Your task to perform on an android device: install app "Adobe Acrobat Reader" Image 0: 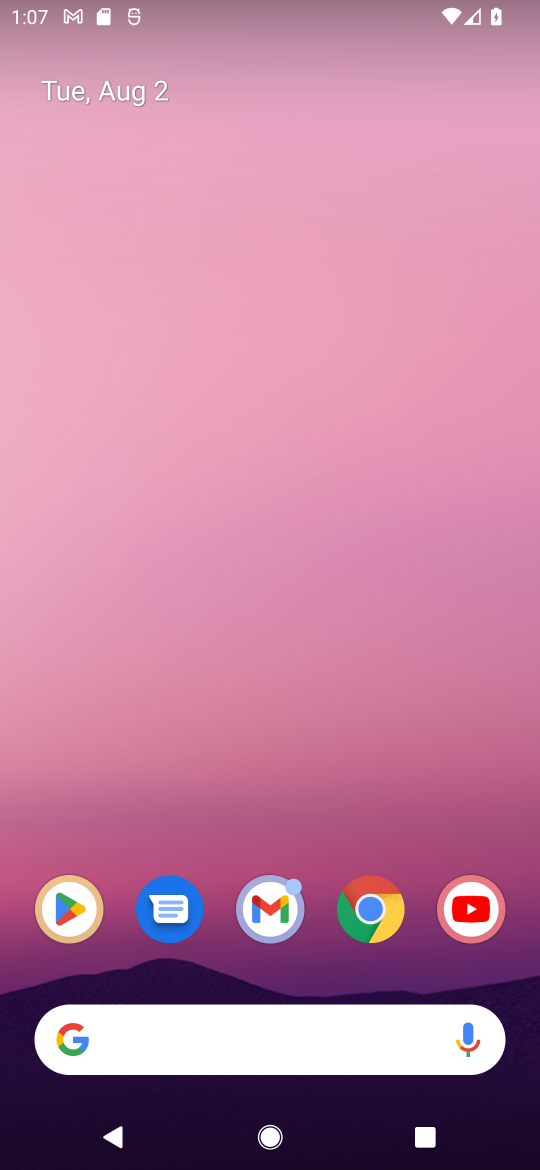
Step 0: click (62, 905)
Your task to perform on an android device: install app "Adobe Acrobat Reader" Image 1: 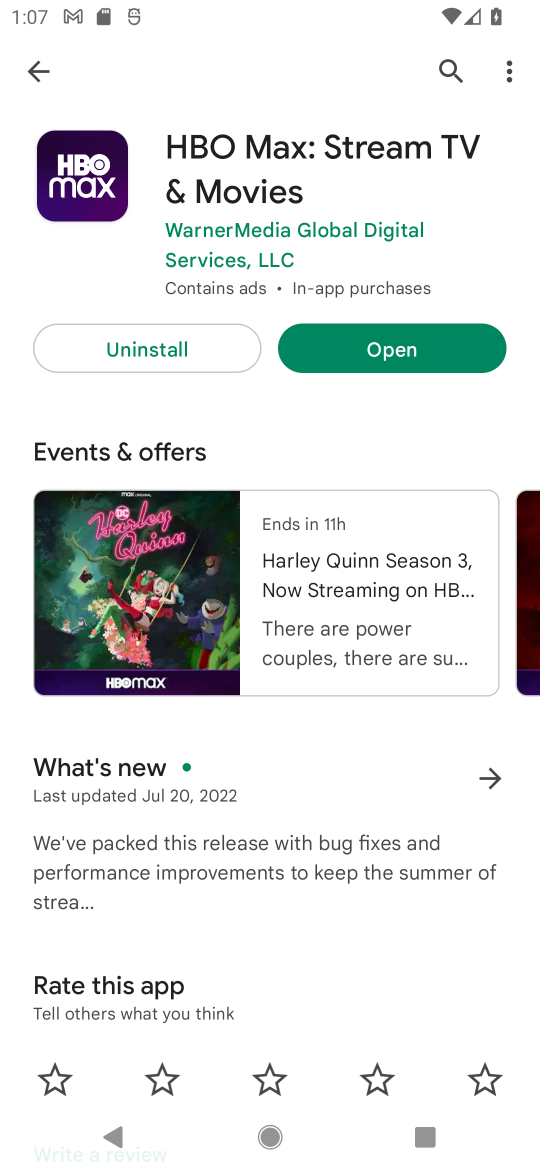
Step 1: click (447, 73)
Your task to perform on an android device: install app "Adobe Acrobat Reader" Image 2: 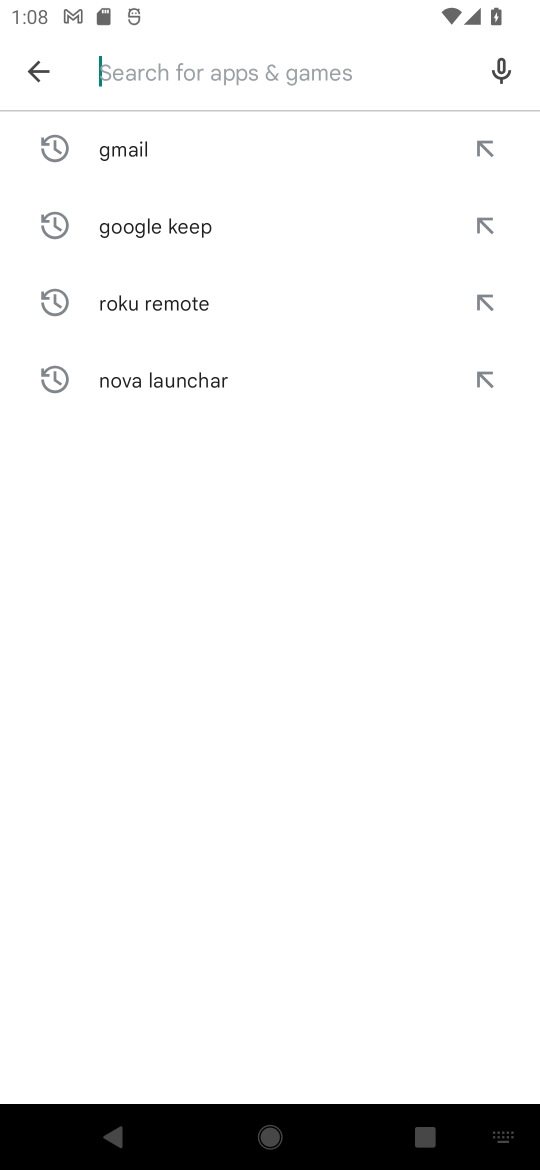
Step 2: type "Adobe Acrobat Reader"
Your task to perform on an android device: install app "Adobe Acrobat Reader" Image 3: 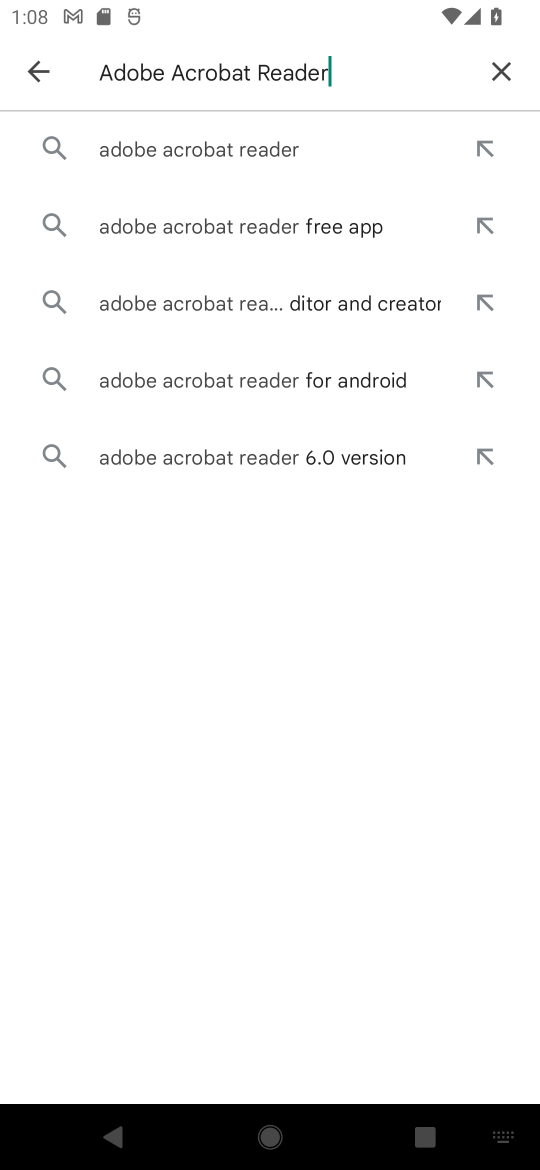
Step 3: click (205, 143)
Your task to perform on an android device: install app "Adobe Acrobat Reader" Image 4: 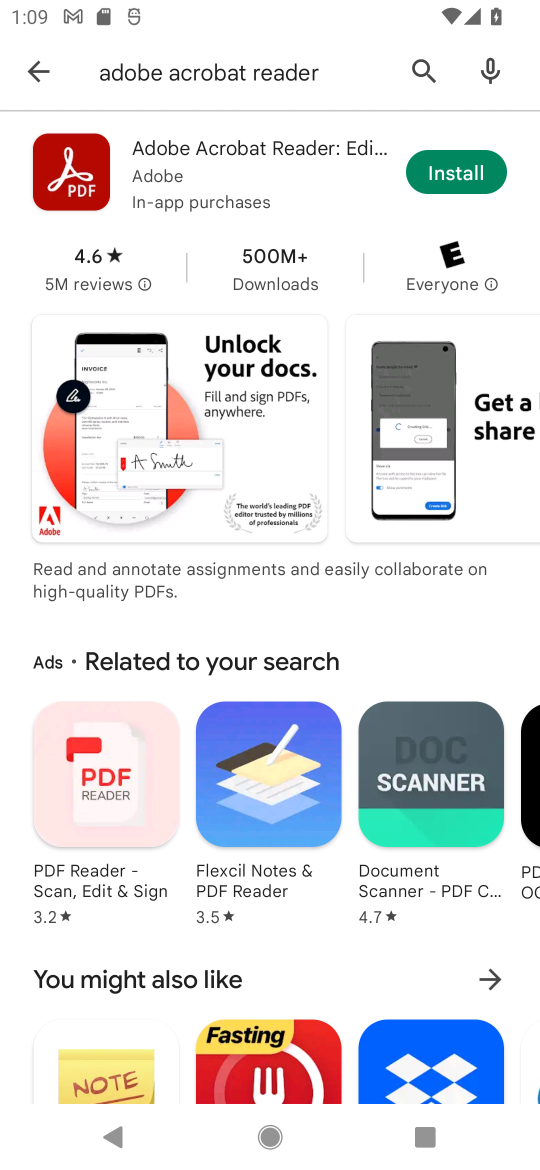
Step 4: click (456, 179)
Your task to perform on an android device: install app "Adobe Acrobat Reader" Image 5: 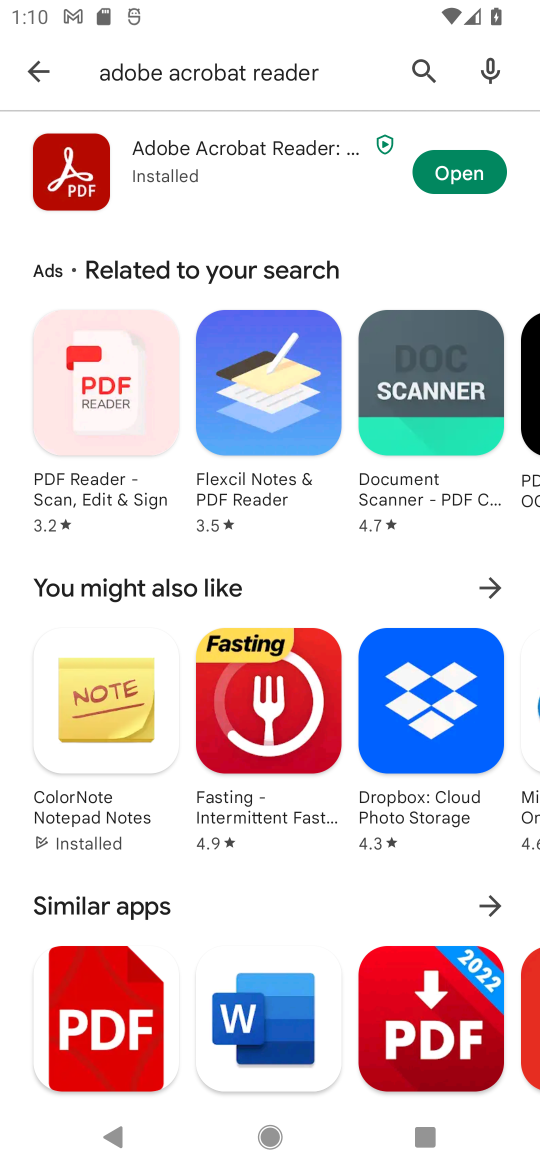
Step 5: click (478, 176)
Your task to perform on an android device: install app "Adobe Acrobat Reader" Image 6: 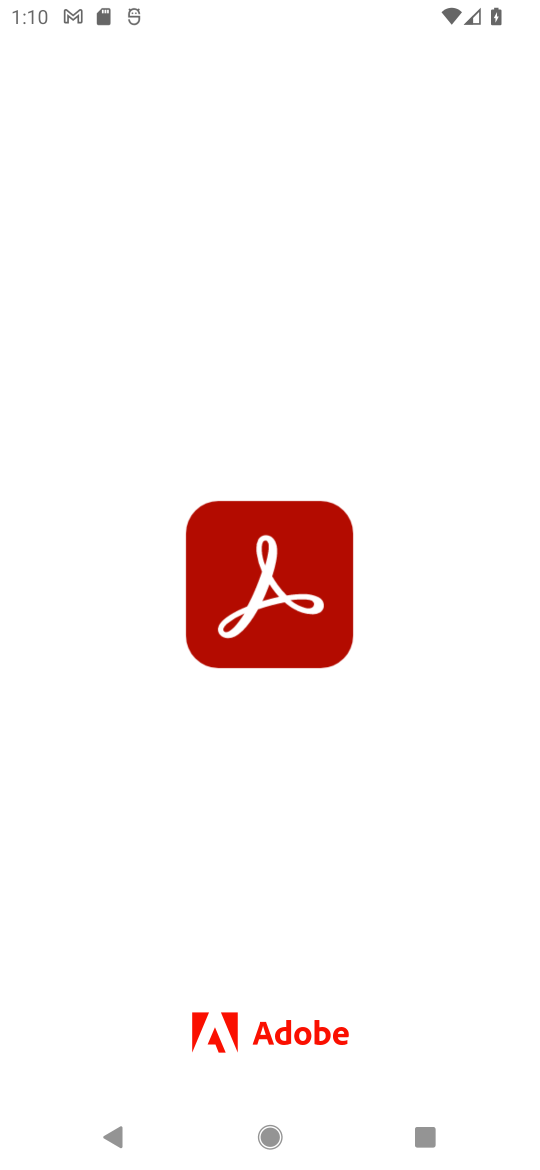
Step 6: task complete